Your task to perform on an android device: Search for the best burger restaurants on Maps Image 0: 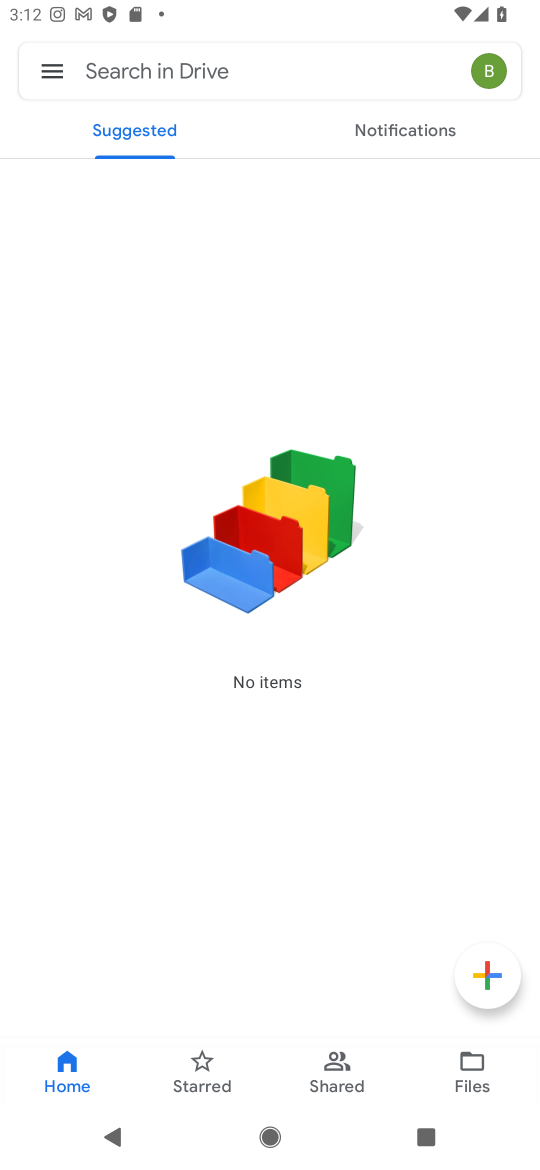
Step 0: press home button
Your task to perform on an android device: Search for the best burger restaurants on Maps Image 1: 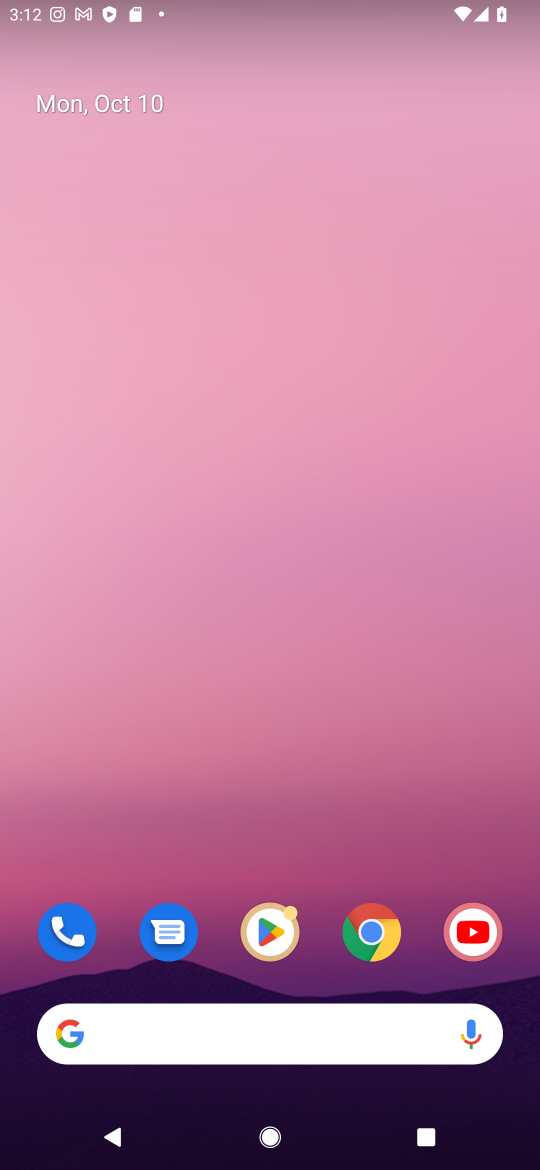
Step 1: drag from (507, 772) to (487, 95)
Your task to perform on an android device: Search for the best burger restaurants on Maps Image 2: 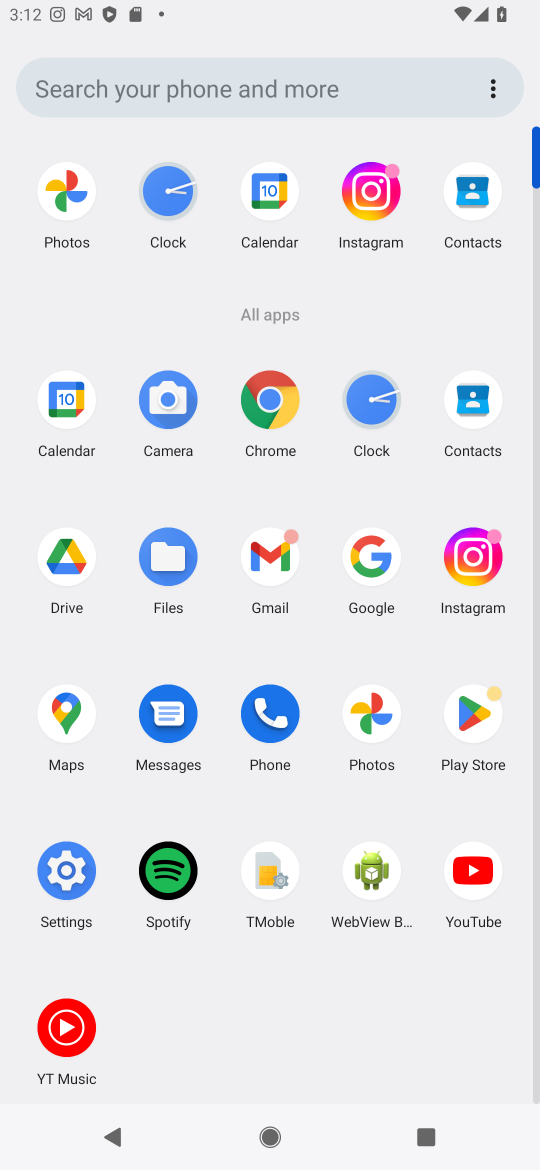
Step 2: click (50, 712)
Your task to perform on an android device: Search for the best burger restaurants on Maps Image 3: 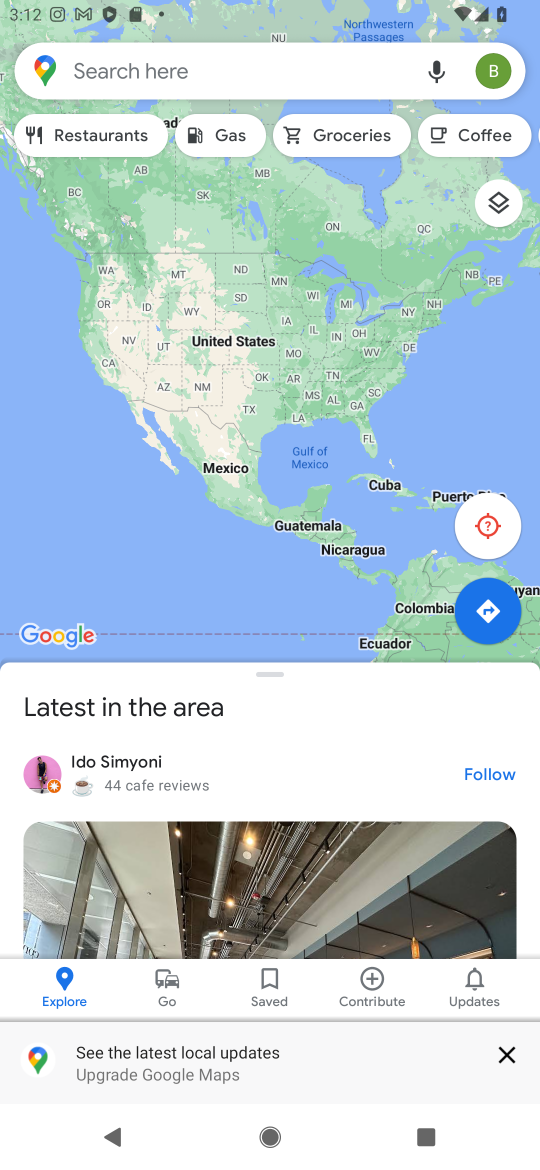
Step 3: click (180, 58)
Your task to perform on an android device: Search for the best burger restaurants on Maps Image 4: 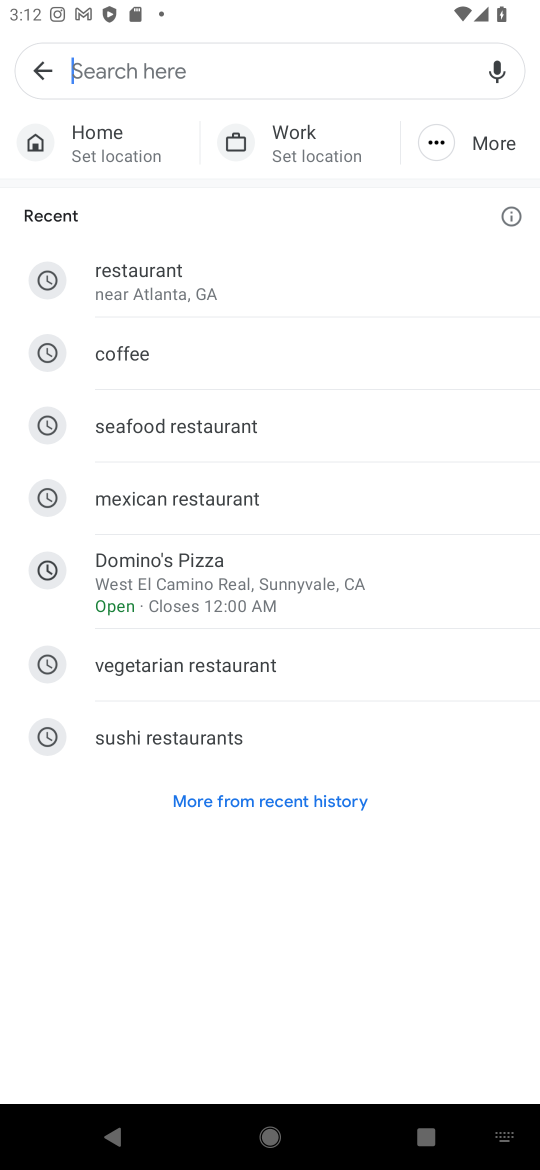
Step 4: type "burger restaurants"
Your task to perform on an android device: Search for the best burger restaurants on Maps Image 5: 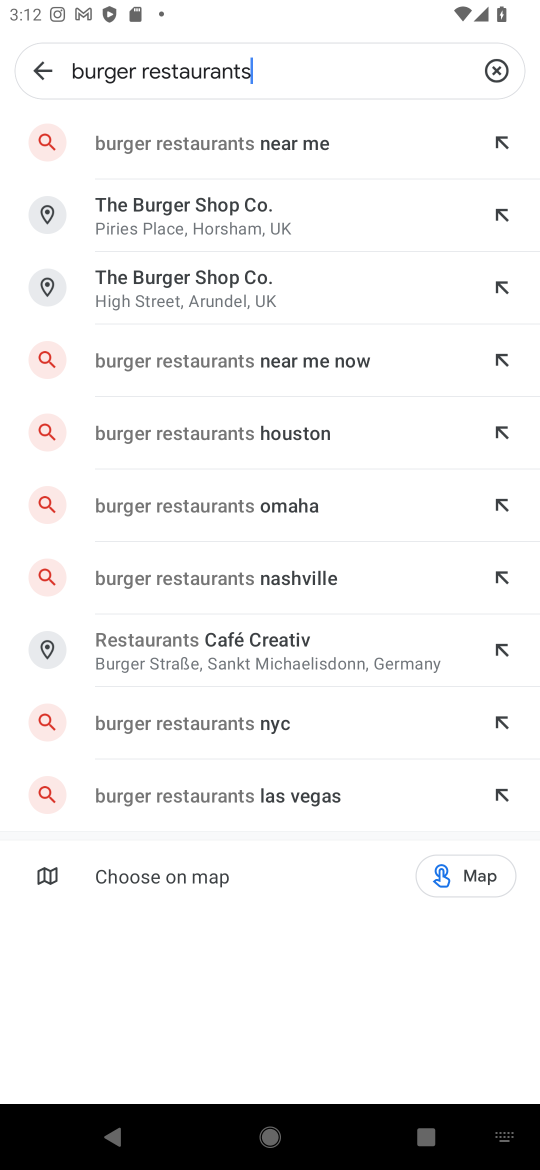
Step 5: click (294, 143)
Your task to perform on an android device: Search for the best burger restaurants on Maps Image 6: 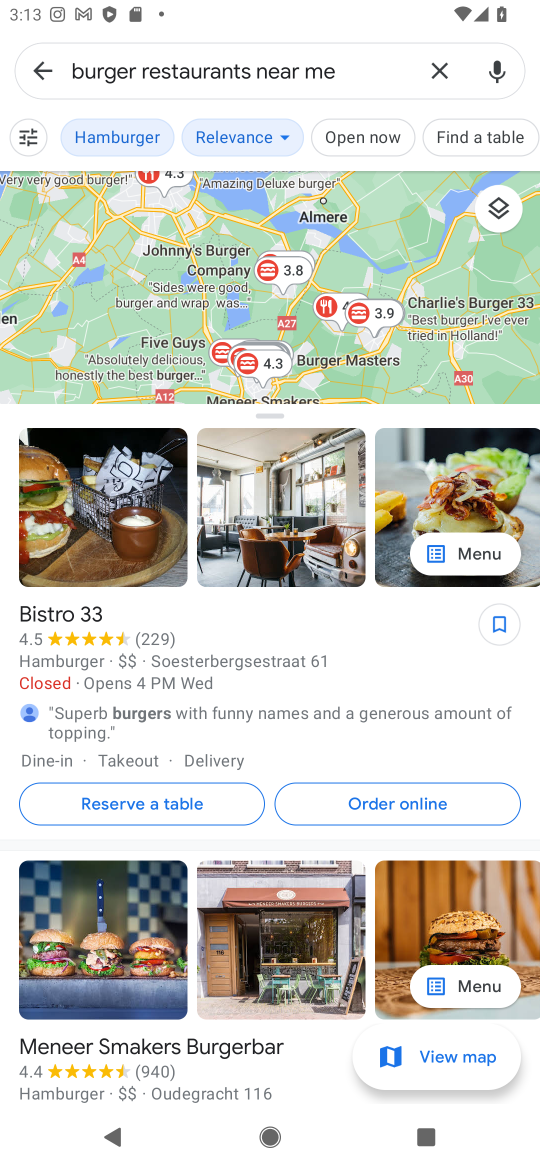
Step 6: task complete